Your task to perform on an android device: Go to Reddit.com Image 0: 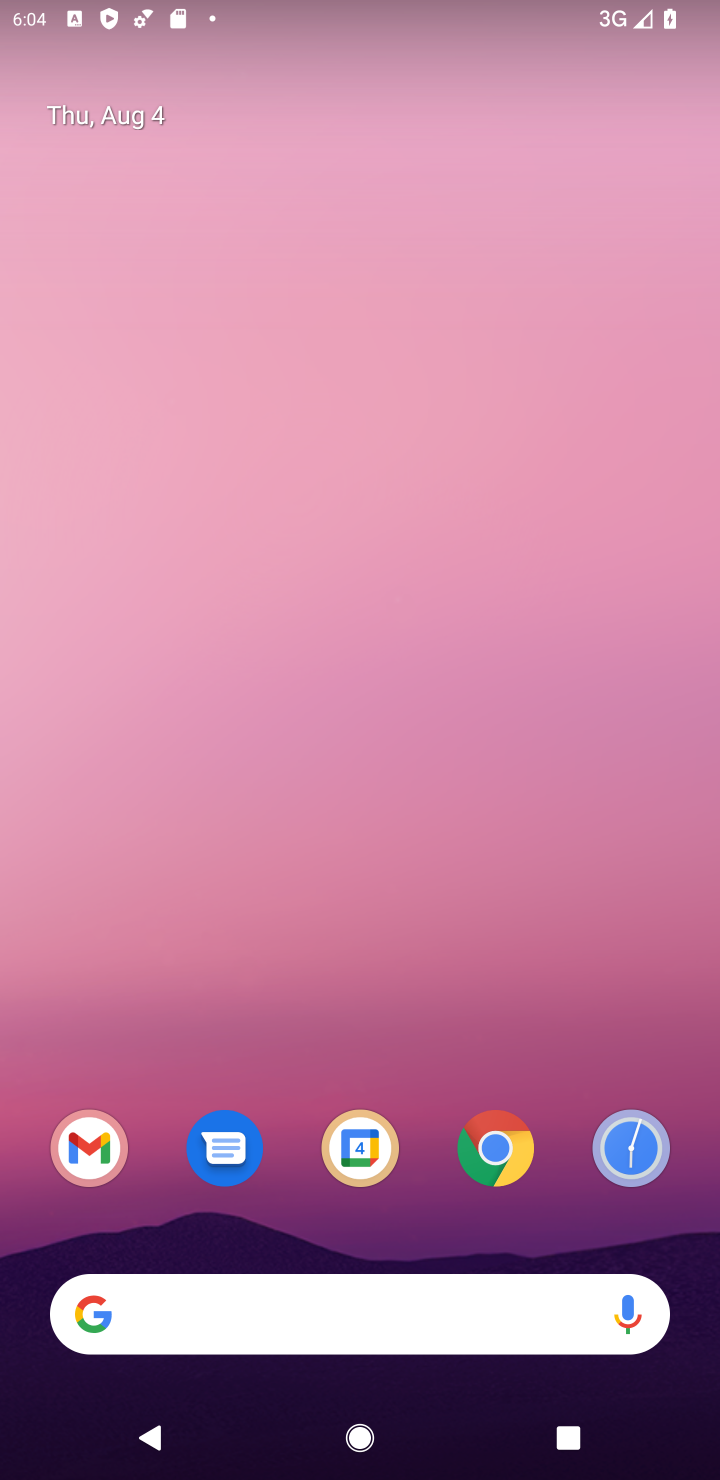
Step 0: click (491, 1152)
Your task to perform on an android device: Go to Reddit.com Image 1: 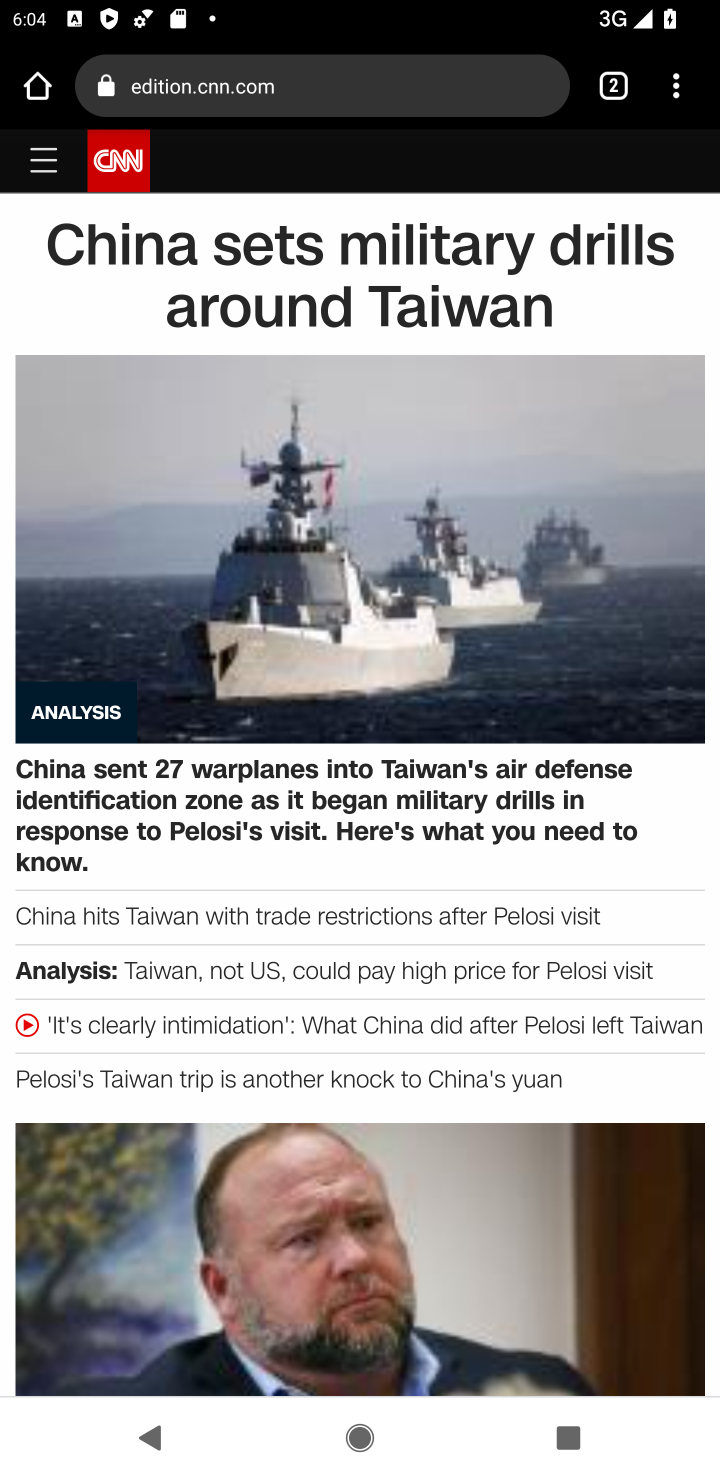
Step 1: click (348, 78)
Your task to perform on an android device: Go to Reddit.com Image 2: 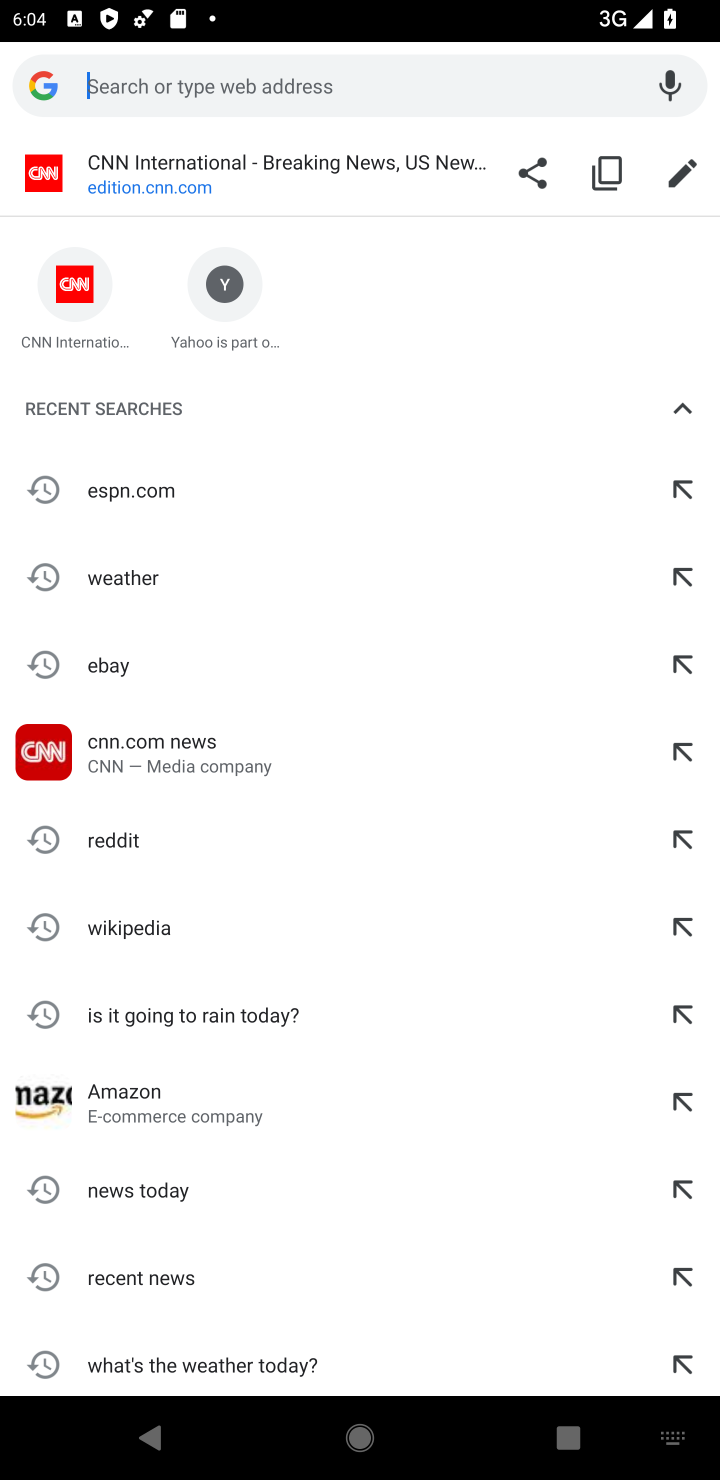
Step 2: type "reddit.com"
Your task to perform on an android device: Go to Reddit.com Image 3: 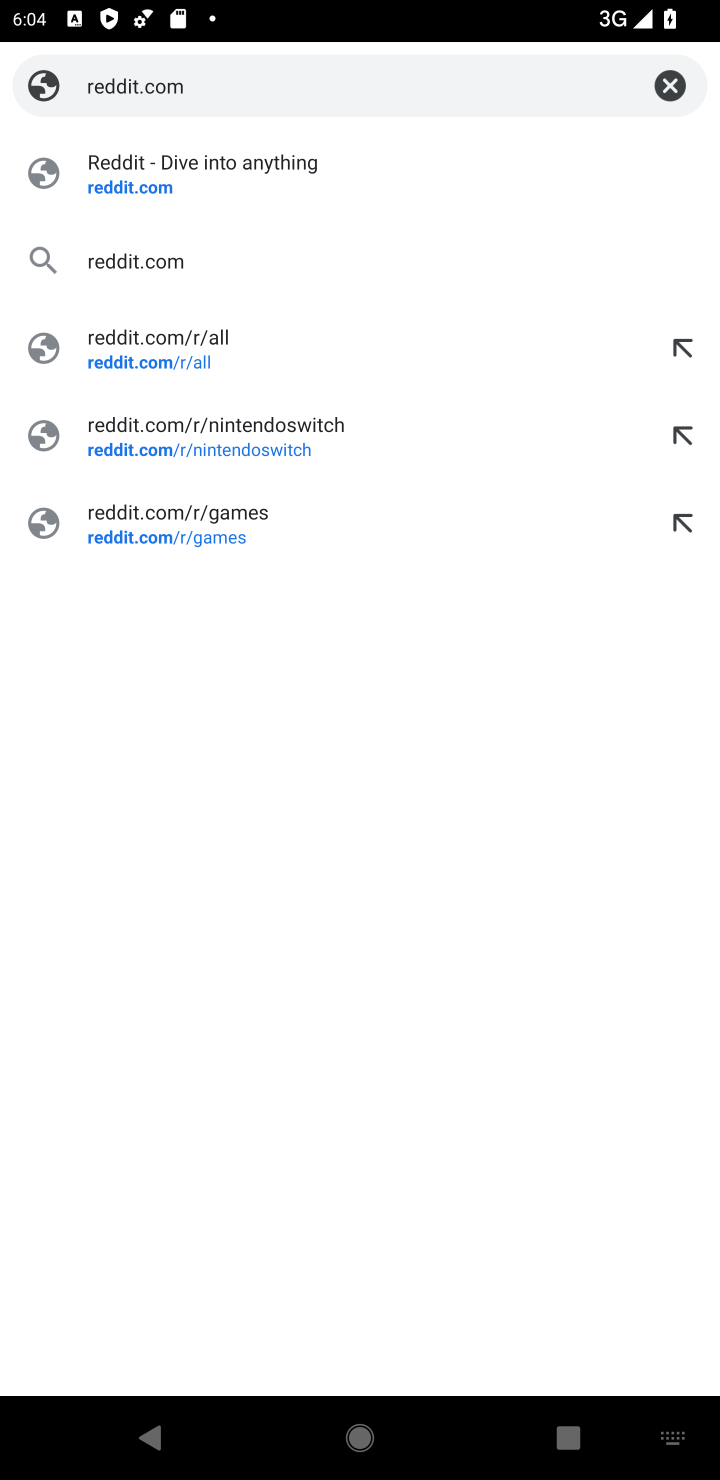
Step 3: click (164, 161)
Your task to perform on an android device: Go to Reddit.com Image 4: 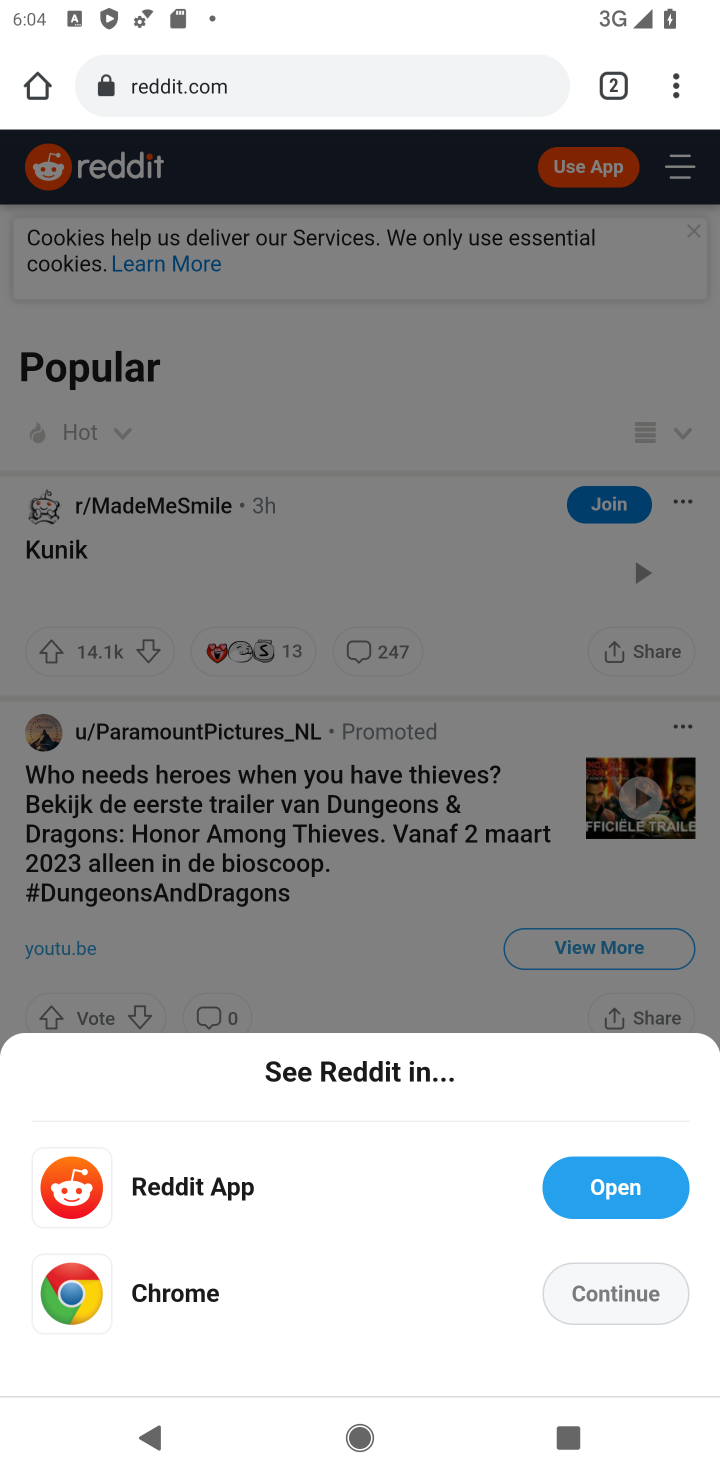
Step 4: task complete